Your task to perform on an android device: see creations saved in the google photos Image 0: 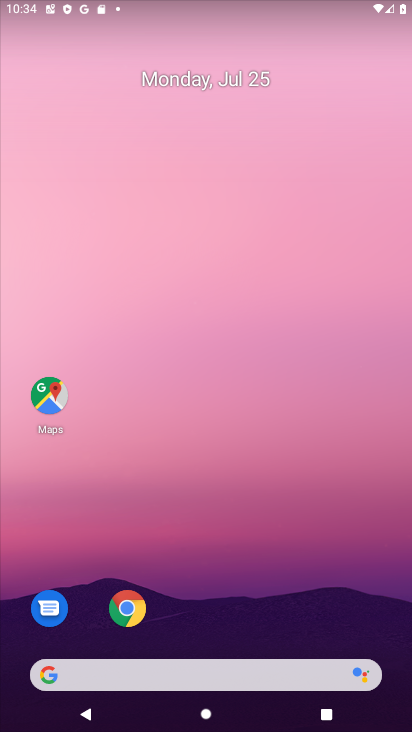
Step 0: drag from (266, 681) to (325, 121)
Your task to perform on an android device: see creations saved in the google photos Image 1: 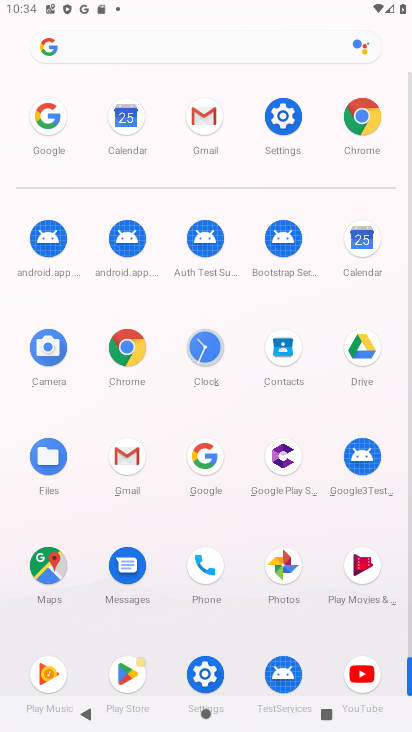
Step 1: click (285, 579)
Your task to perform on an android device: see creations saved in the google photos Image 2: 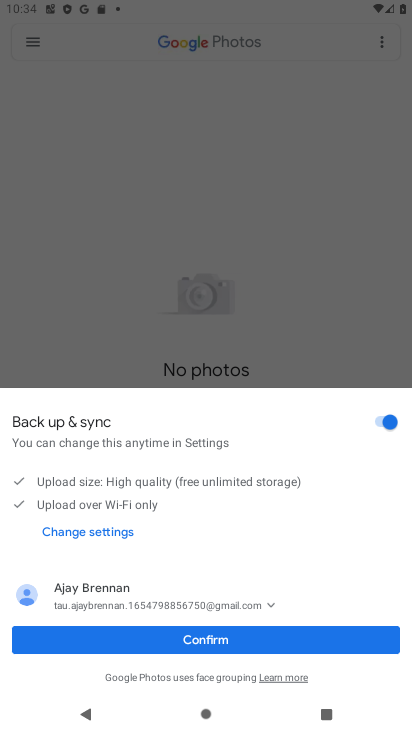
Step 2: click (216, 642)
Your task to perform on an android device: see creations saved in the google photos Image 3: 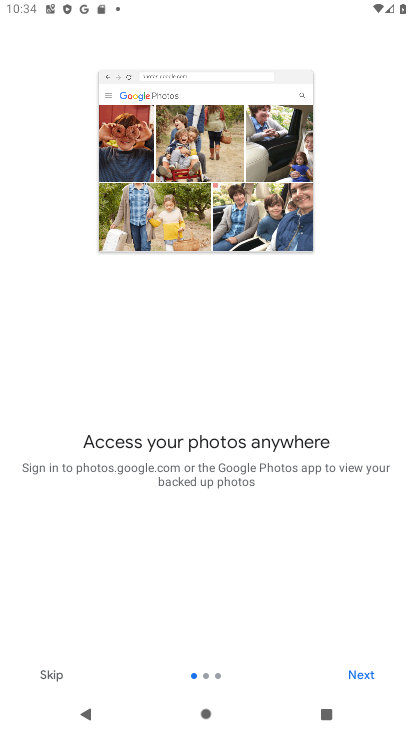
Step 3: click (354, 669)
Your task to perform on an android device: see creations saved in the google photos Image 4: 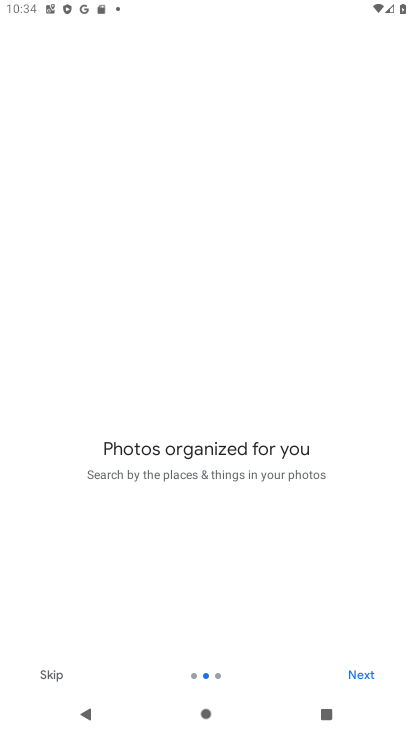
Step 4: click (354, 669)
Your task to perform on an android device: see creations saved in the google photos Image 5: 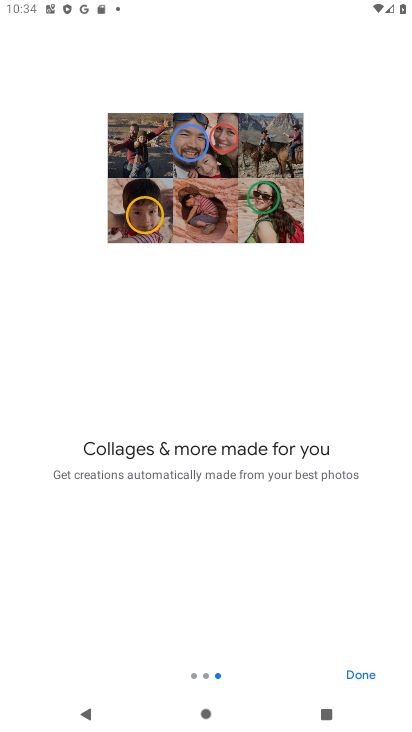
Step 5: click (362, 675)
Your task to perform on an android device: see creations saved in the google photos Image 6: 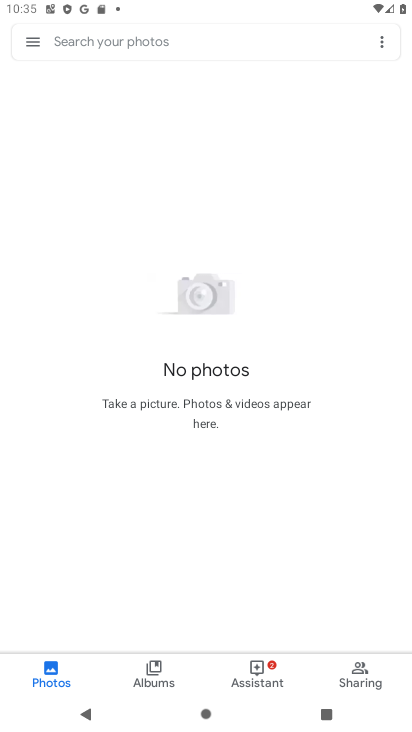
Step 6: click (163, 675)
Your task to perform on an android device: see creations saved in the google photos Image 7: 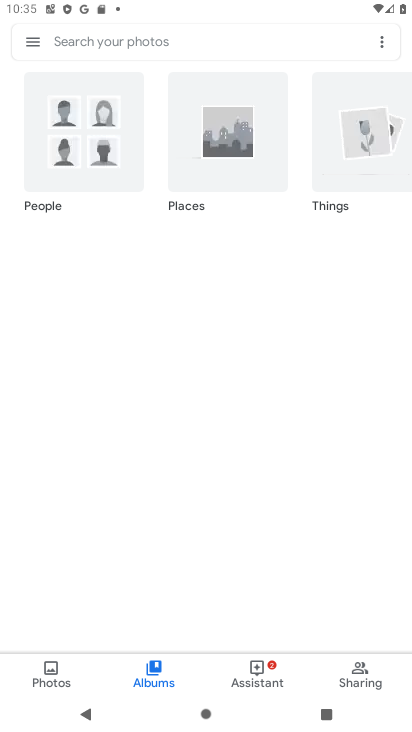
Step 7: click (251, 679)
Your task to perform on an android device: see creations saved in the google photos Image 8: 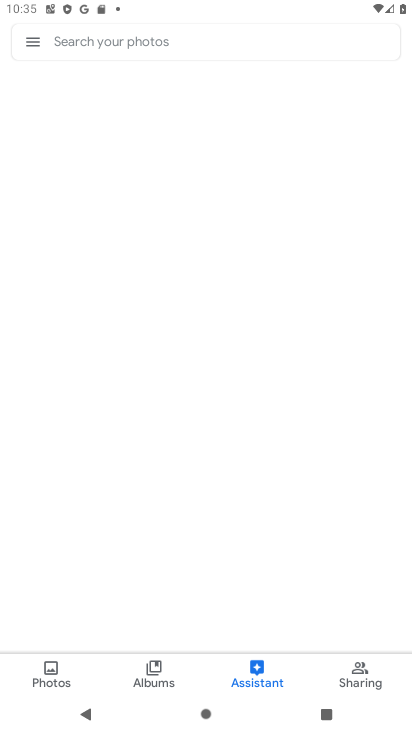
Step 8: click (352, 680)
Your task to perform on an android device: see creations saved in the google photos Image 9: 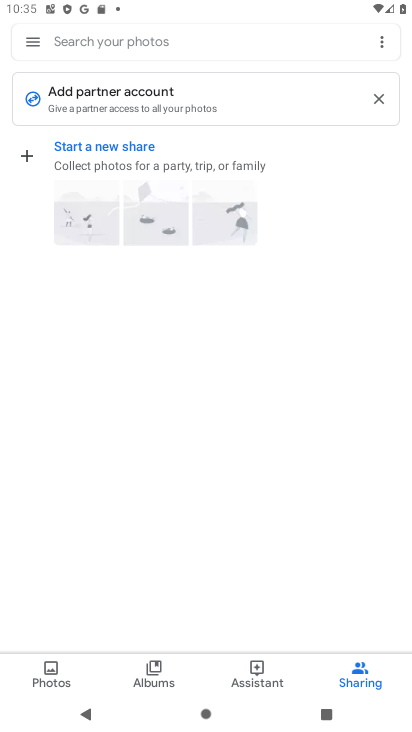
Step 9: task complete